Your task to perform on an android device: turn off smart reply in the gmail app Image 0: 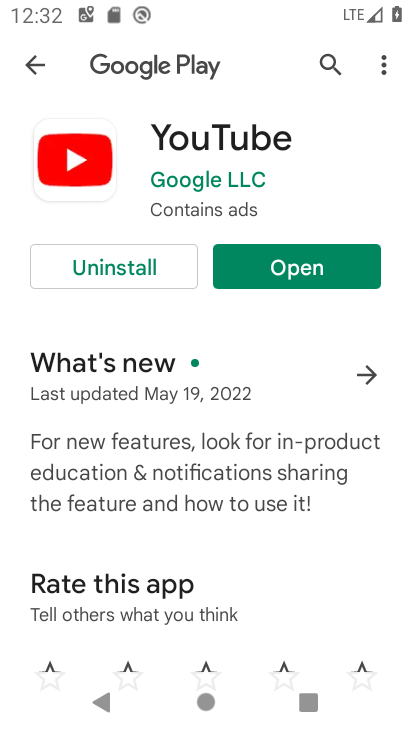
Step 0: press home button
Your task to perform on an android device: turn off smart reply in the gmail app Image 1: 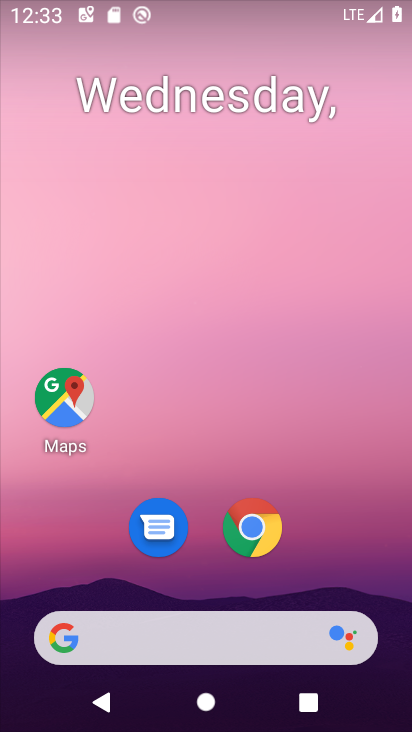
Step 1: drag from (323, 605) to (311, 23)
Your task to perform on an android device: turn off smart reply in the gmail app Image 2: 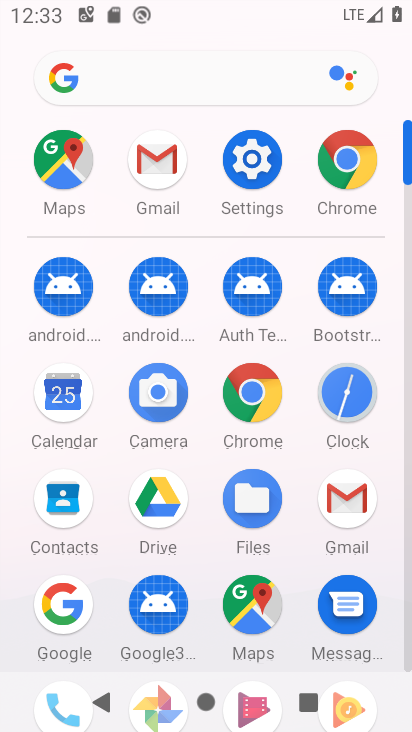
Step 2: click (363, 520)
Your task to perform on an android device: turn off smart reply in the gmail app Image 3: 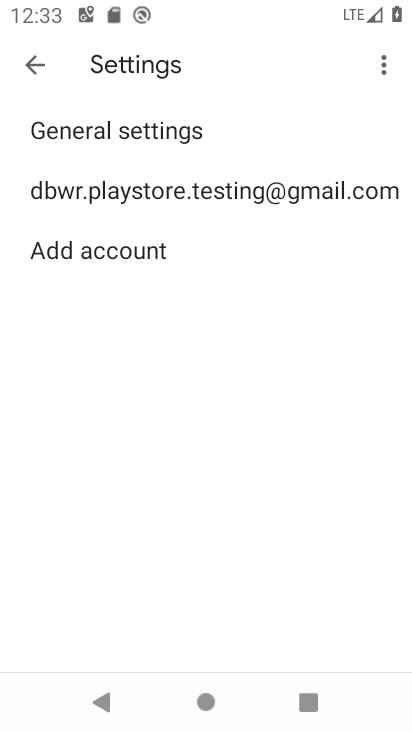
Step 3: click (243, 197)
Your task to perform on an android device: turn off smart reply in the gmail app Image 4: 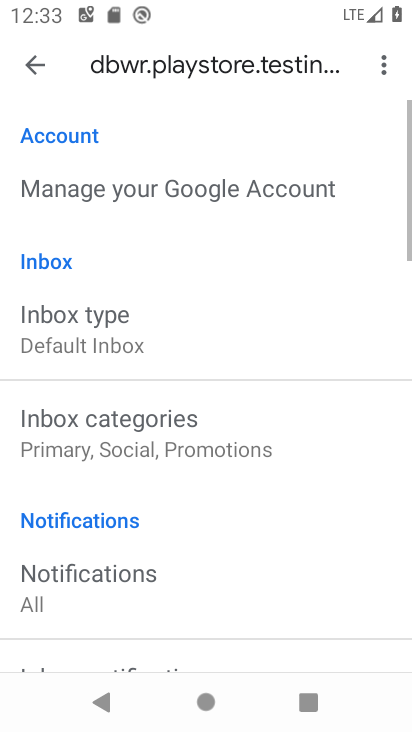
Step 4: drag from (312, 661) to (278, 53)
Your task to perform on an android device: turn off smart reply in the gmail app Image 5: 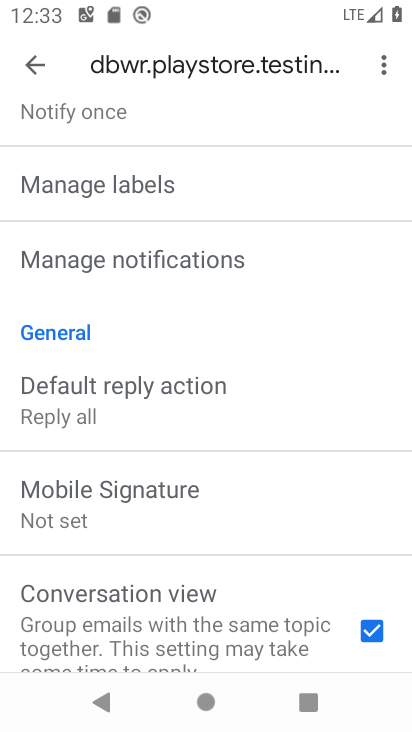
Step 5: drag from (219, 575) to (277, 82)
Your task to perform on an android device: turn off smart reply in the gmail app Image 6: 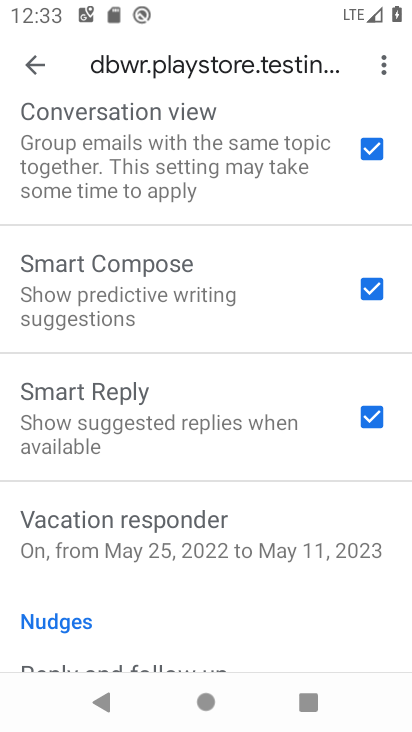
Step 6: click (368, 415)
Your task to perform on an android device: turn off smart reply in the gmail app Image 7: 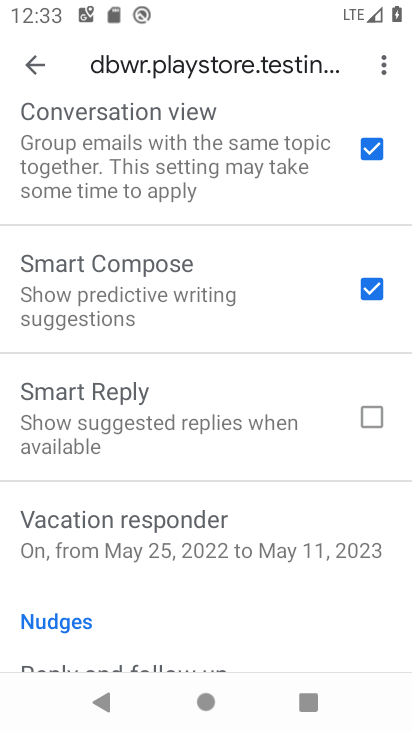
Step 7: task complete